Your task to perform on an android device: Open settings on Google Maps Image 0: 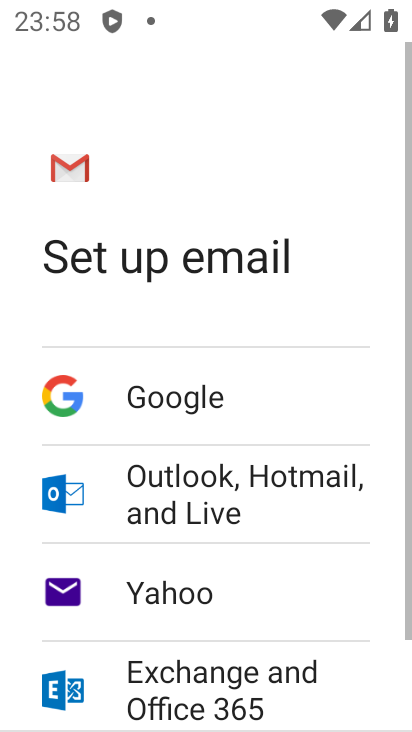
Step 0: press home button
Your task to perform on an android device: Open settings on Google Maps Image 1: 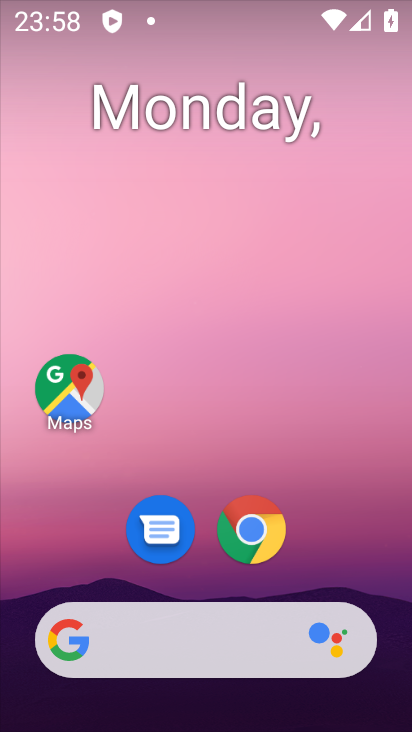
Step 1: press home button
Your task to perform on an android device: Open settings on Google Maps Image 2: 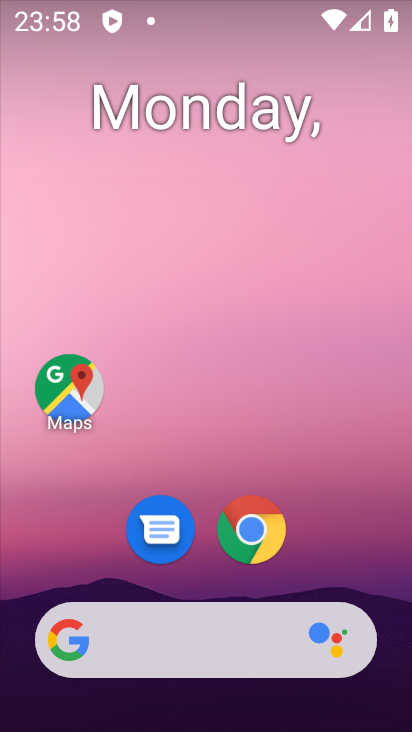
Step 2: drag from (375, 544) to (341, 289)
Your task to perform on an android device: Open settings on Google Maps Image 3: 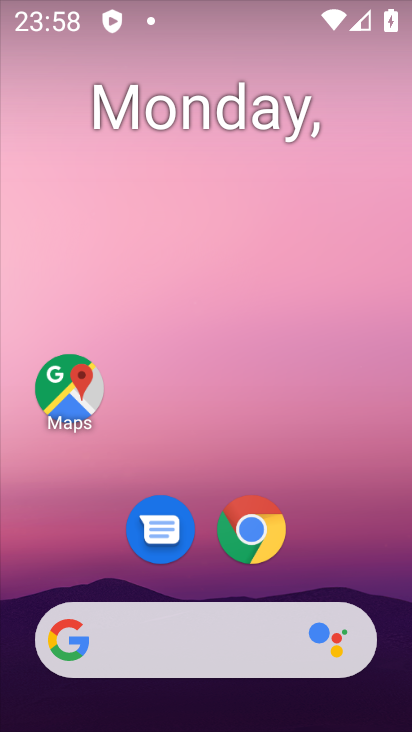
Step 3: drag from (342, 570) to (306, 215)
Your task to perform on an android device: Open settings on Google Maps Image 4: 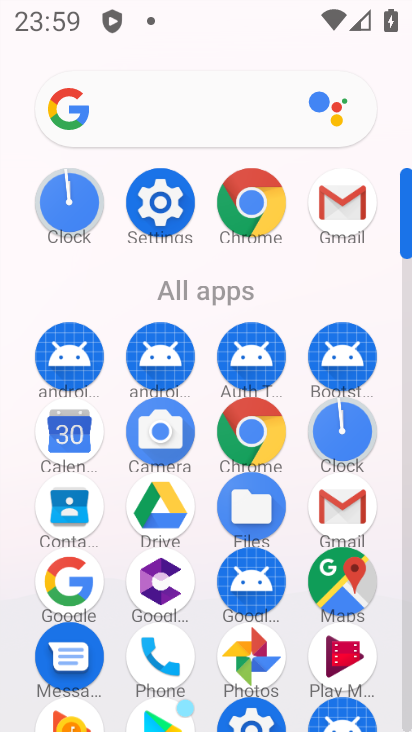
Step 4: click (271, 224)
Your task to perform on an android device: Open settings on Google Maps Image 5: 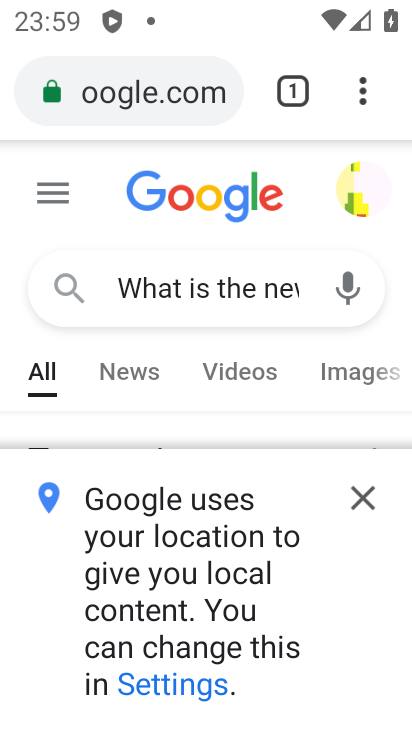
Step 5: press back button
Your task to perform on an android device: Open settings on Google Maps Image 6: 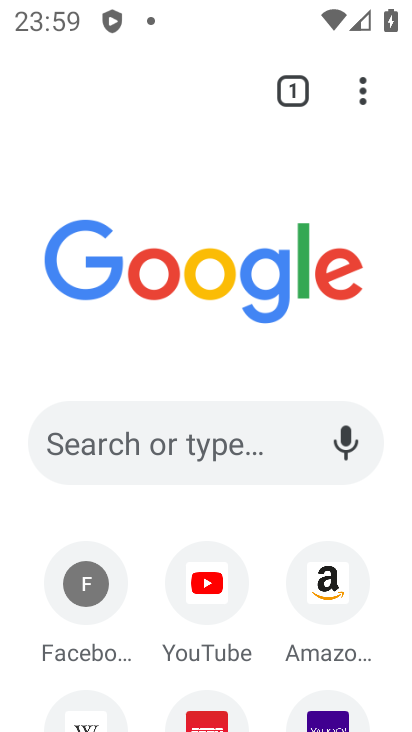
Step 6: press back button
Your task to perform on an android device: Open settings on Google Maps Image 7: 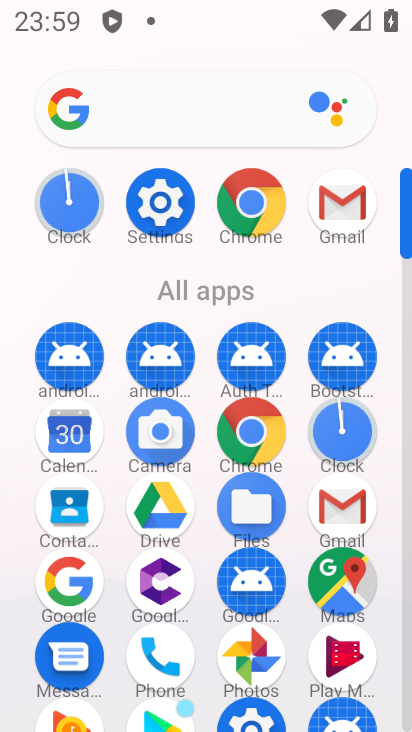
Step 7: click (343, 567)
Your task to perform on an android device: Open settings on Google Maps Image 8: 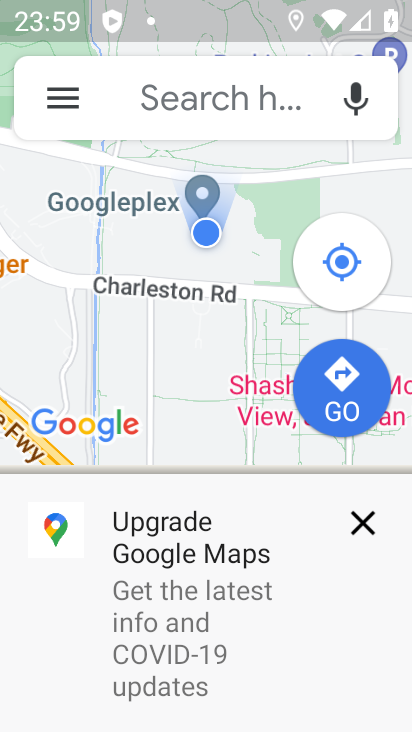
Step 8: click (273, 86)
Your task to perform on an android device: Open settings on Google Maps Image 9: 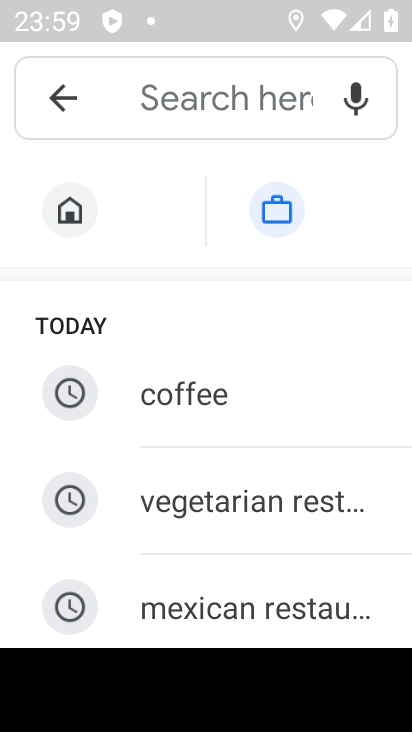
Step 9: type "What is the news today?"
Your task to perform on an android device: Open settings on Google Maps Image 10: 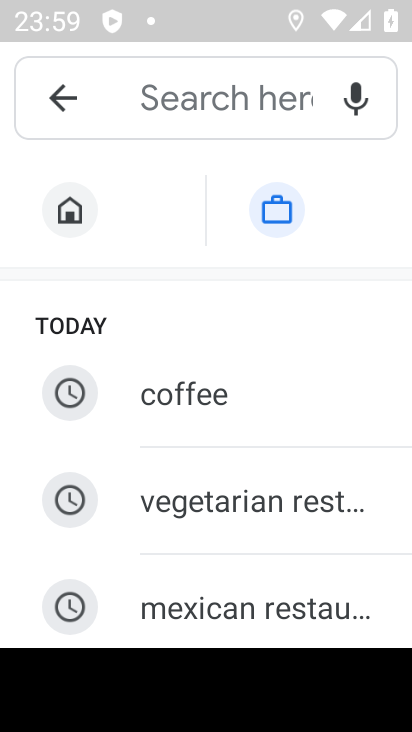
Step 10: click (68, 94)
Your task to perform on an android device: Open settings on Google Maps Image 11: 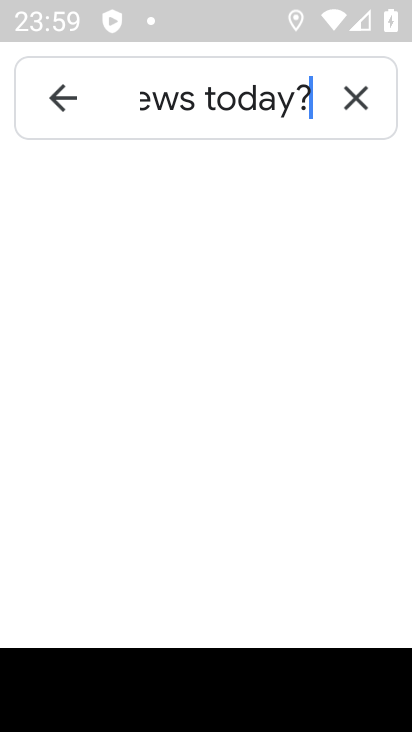
Step 11: click (68, 94)
Your task to perform on an android device: Open settings on Google Maps Image 12: 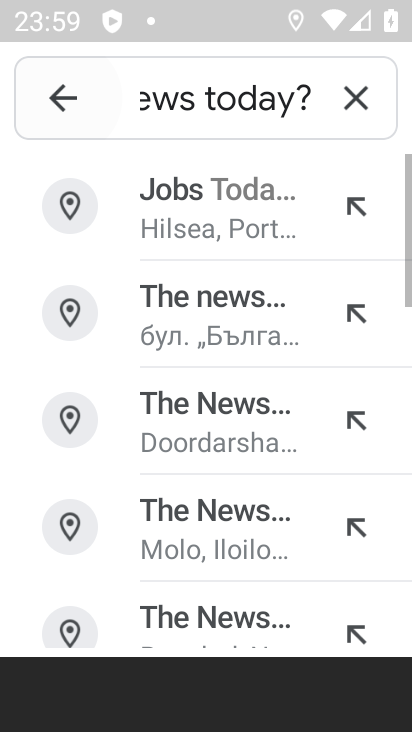
Step 12: click (68, 94)
Your task to perform on an android device: Open settings on Google Maps Image 13: 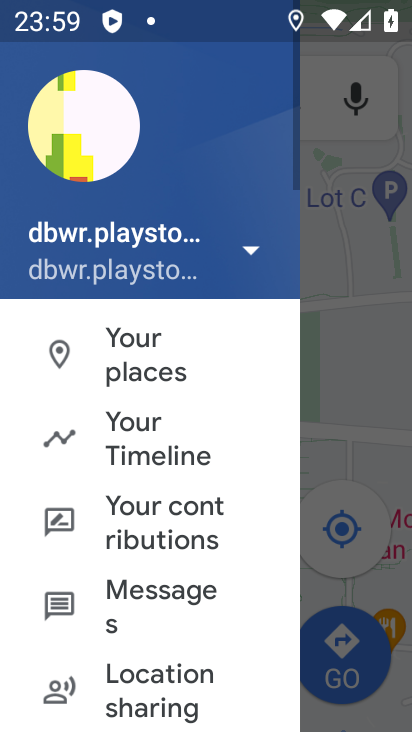
Step 13: click (68, 94)
Your task to perform on an android device: Open settings on Google Maps Image 14: 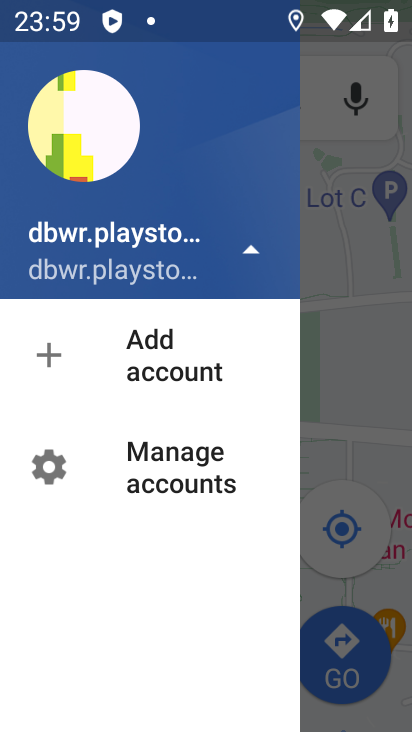
Step 14: click (91, 137)
Your task to perform on an android device: Open settings on Google Maps Image 15: 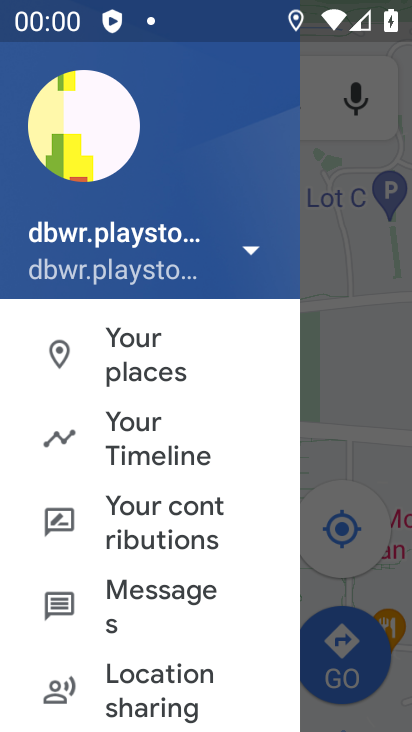
Step 15: drag from (181, 552) to (90, 39)
Your task to perform on an android device: Open settings on Google Maps Image 16: 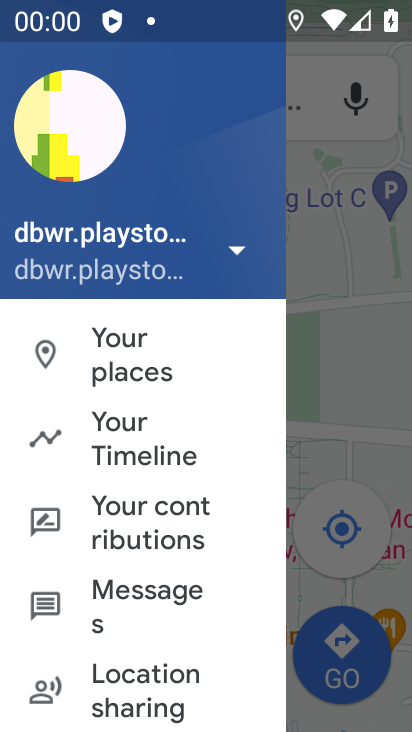
Step 16: drag from (179, 484) to (133, 194)
Your task to perform on an android device: Open settings on Google Maps Image 17: 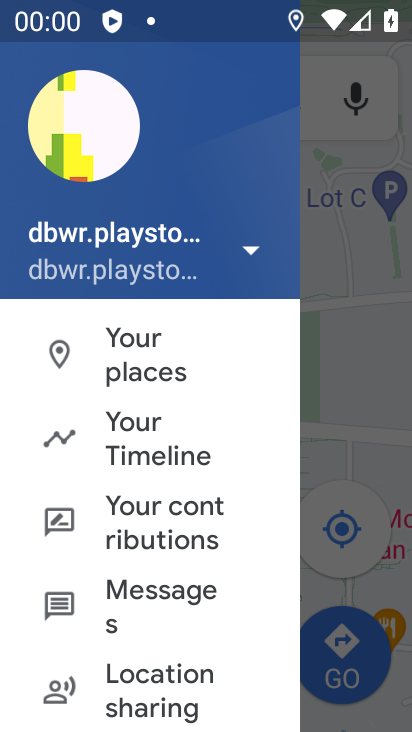
Step 17: drag from (168, 508) to (141, 274)
Your task to perform on an android device: Open settings on Google Maps Image 18: 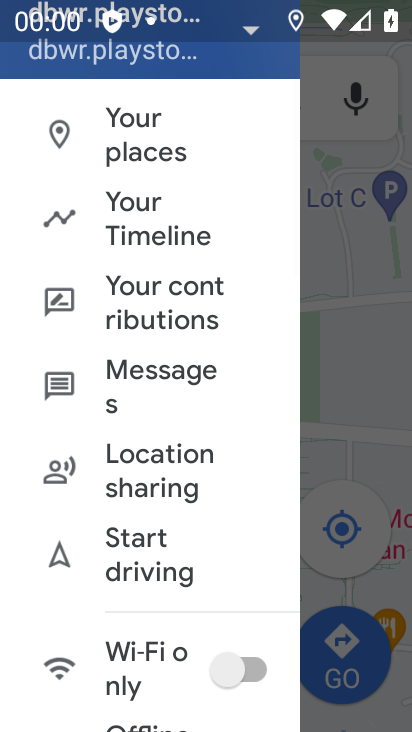
Step 18: drag from (147, 642) to (133, 75)
Your task to perform on an android device: Open settings on Google Maps Image 19: 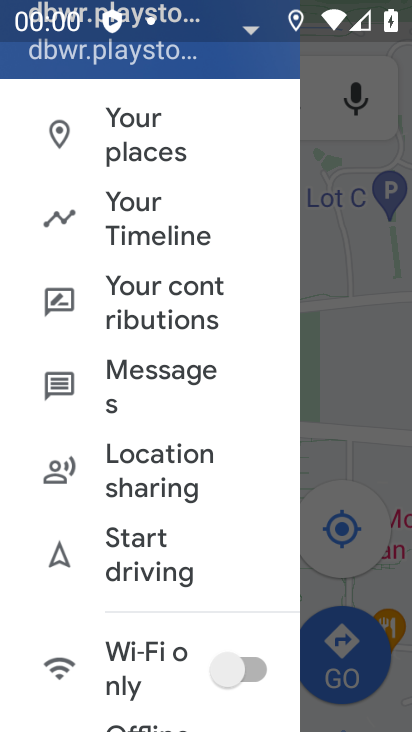
Step 19: drag from (143, 643) to (121, 130)
Your task to perform on an android device: Open settings on Google Maps Image 20: 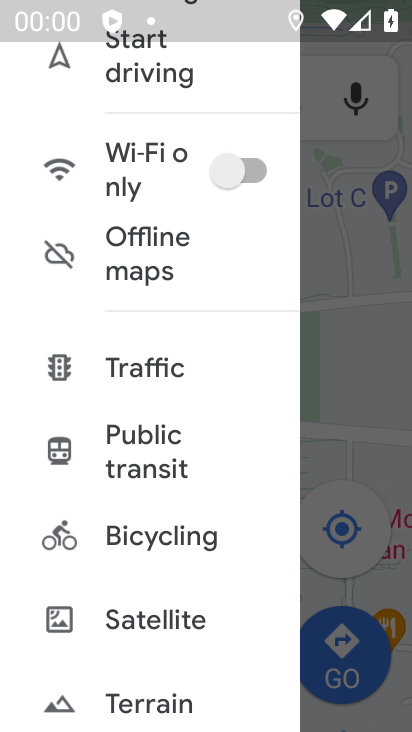
Step 20: drag from (170, 681) to (171, 92)
Your task to perform on an android device: Open settings on Google Maps Image 21: 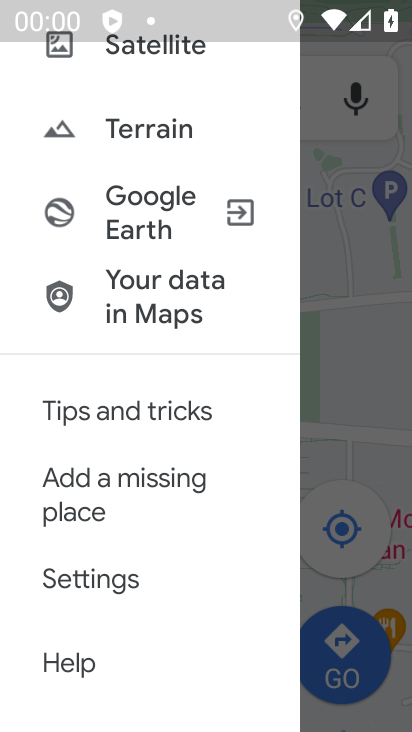
Step 21: click (140, 589)
Your task to perform on an android device: Open settings on Google Maps Image 22: 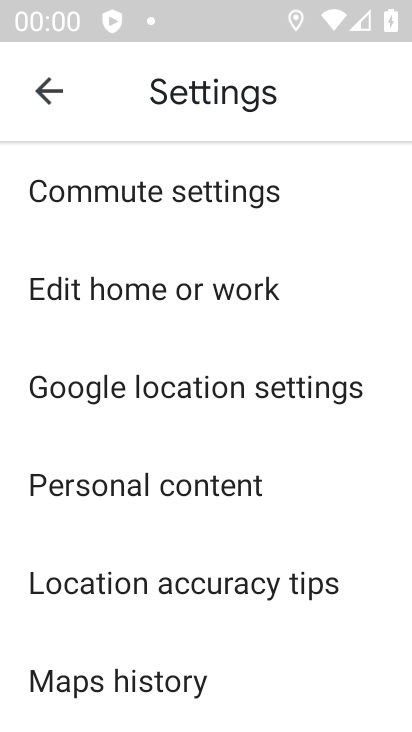
Step 22: task complete